Your task to perform on an android device: Show me the alarms in the clock app Image 0: 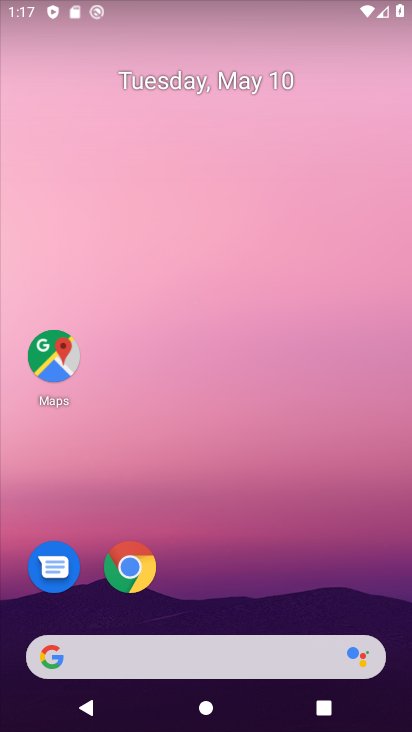
Step 0: drag from (182, 632) to (281, 155)
Your task to perform on an android device: Show me the alarms in the clock app Image 1: 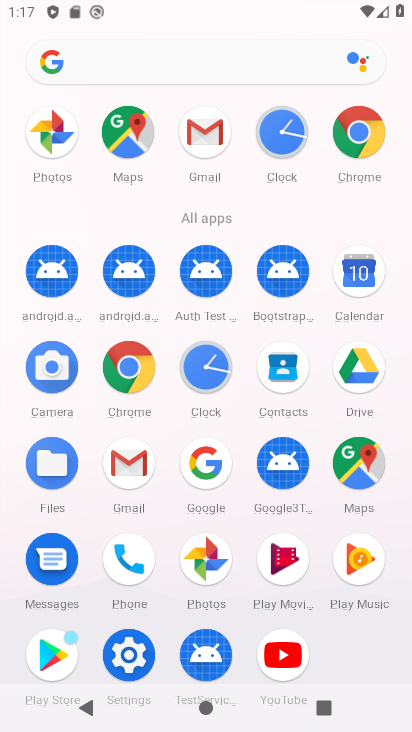
Step 1: click (208, 376)
Your task to perform on an android device: Show me the alarms in the clock app Image 2: 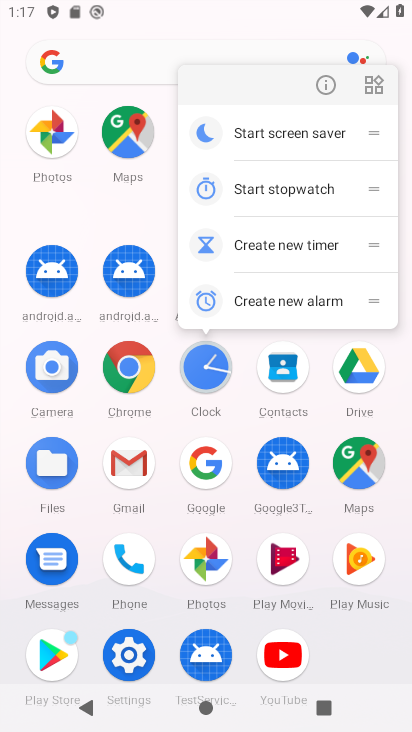
Step 2: click (209, 377)
Your task to perform on an android device: Show me the alarms in the clock app Image 3: 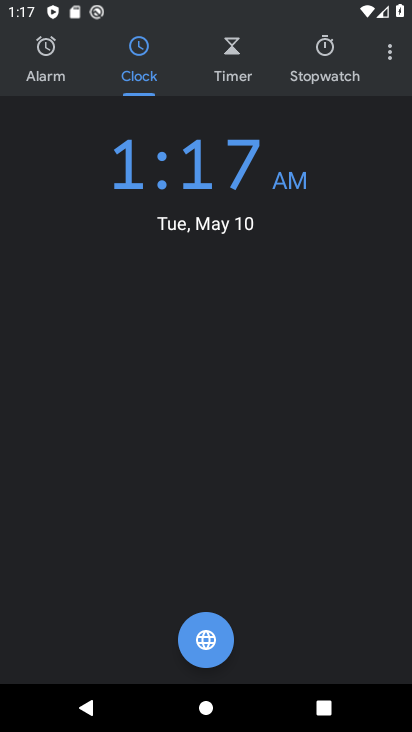
Step 3: click (69, 52)
Your task to perform on an android device: Show me the alarms in the clock app Image 4: 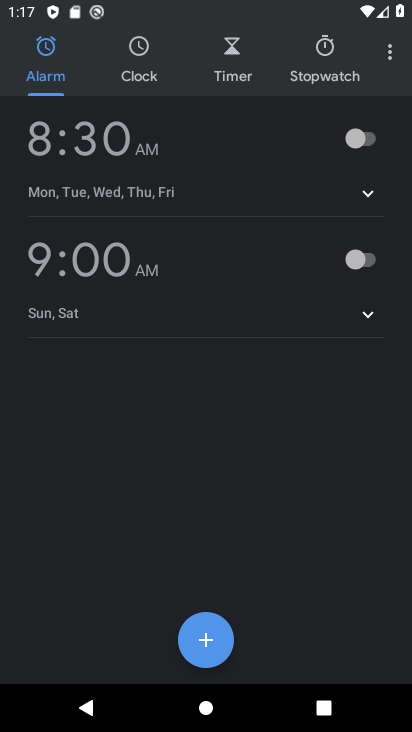
Step 4: task complete